Your task to perform on an android device: Go to Amazon Image 0: 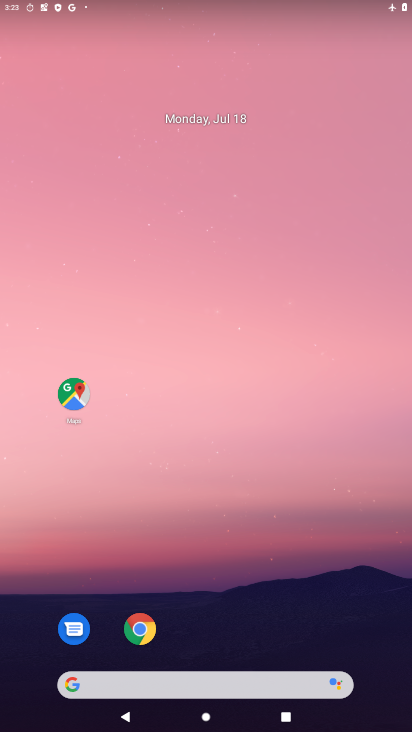
Step 0: click (155, 624)
Your task to perform on an android device: Go to Amazon Image 1: 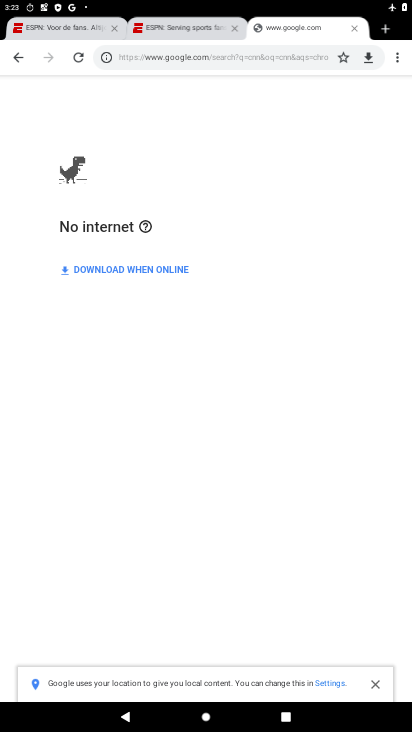
Step 1: click (385, 27)
Your task to perform on an android device: Go to Amazon Image 2: 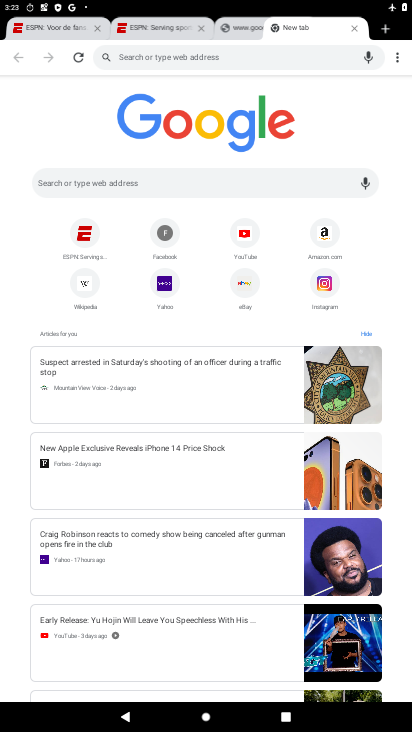
Step 2: click (320, 225)
Your task to perform on an android device: Go to Amazon Image 3: 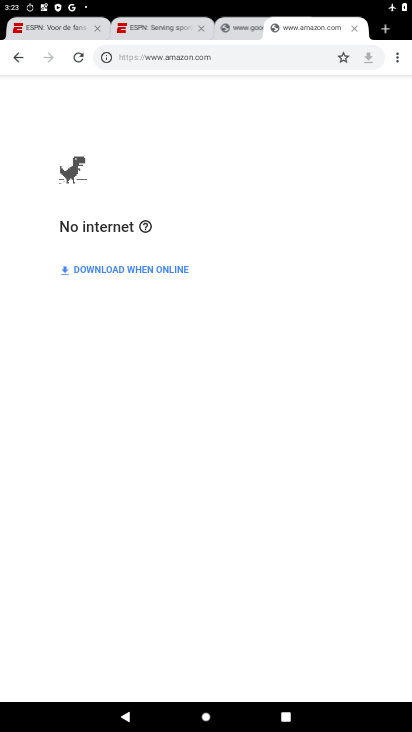
Step 3: task complete